Your task to perform on an android device: find snoozed emails in the gmail app Image 0: 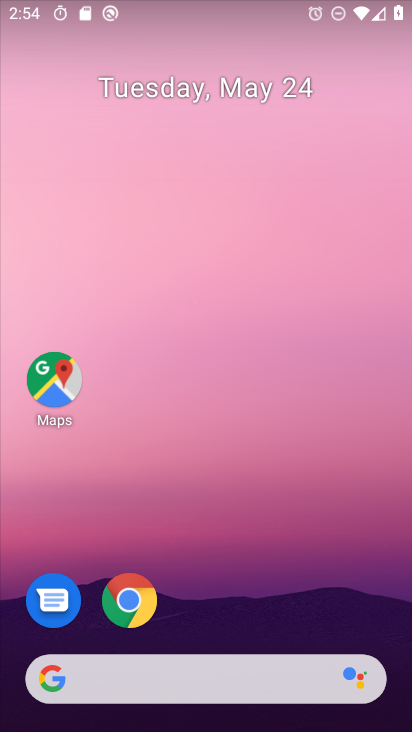
Step 0: drag from (244, 603) to (186, 122)
Your task to perform on an android device: find snoozed emails in the gmail app Image 1: 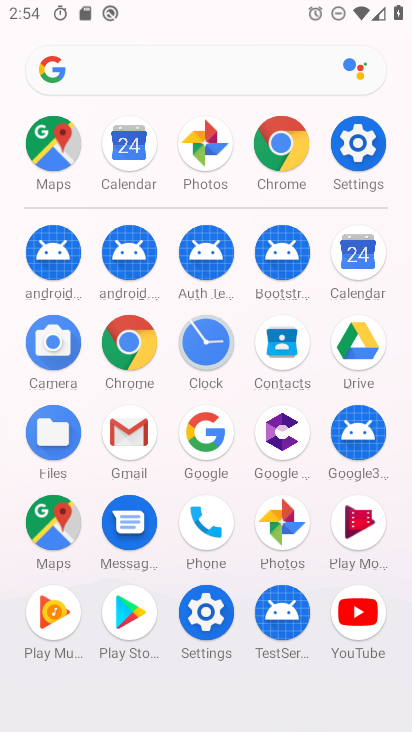
Step 1: click (136, 441)
Your task to perform on an android device: find snoozed emails in the gmail app Image 2: 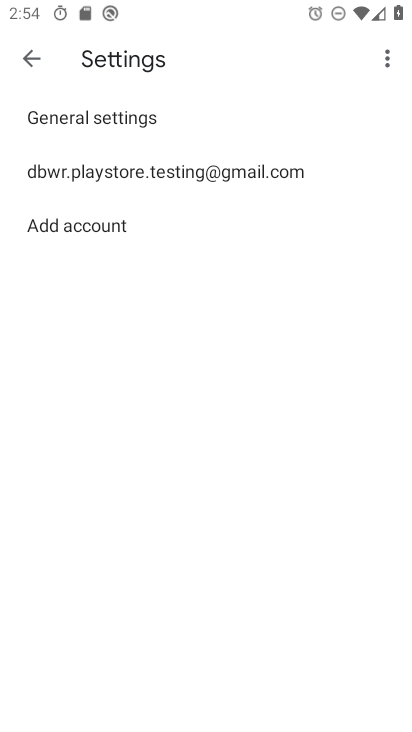
Step 2: click (34, 49)
Your task to perform on an android device: find snoozed emails in the gmail app Image 3: 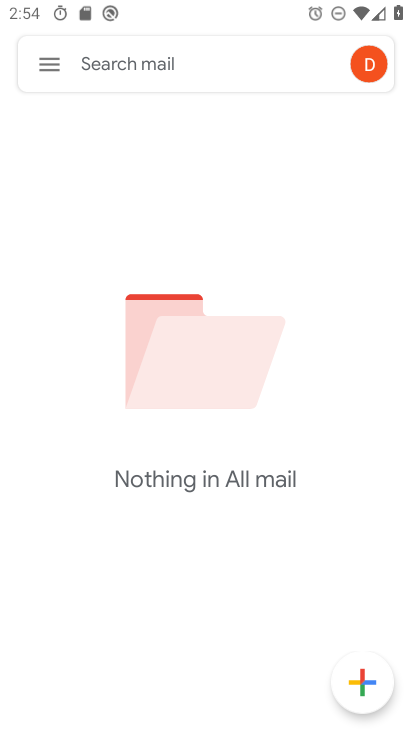
Step 3: click (41, 56)
Your task to perform on an android device: find snoozed emails in the gmail app Image 4: 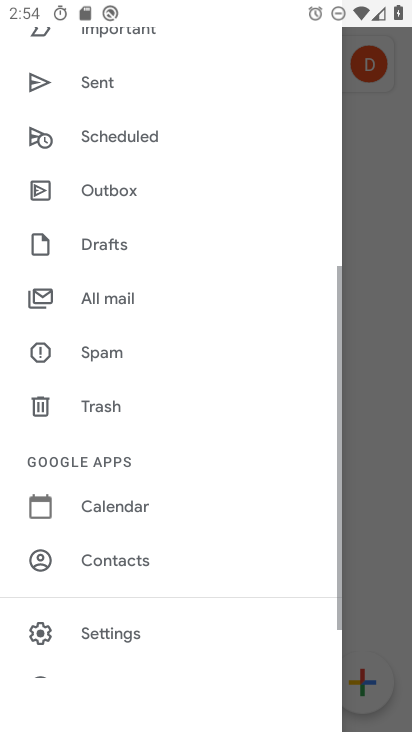
Step 4: drag from (135, 183) to (172, 461)
Your task to perform on an android device: find snoozed emails in the gmail app Image 5: 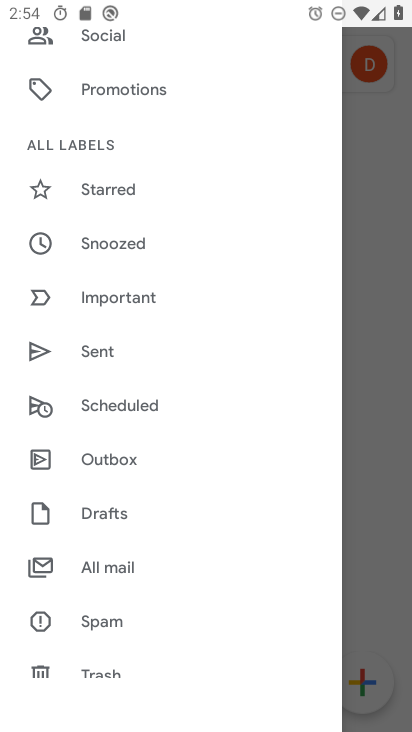
Step 5: click (129, 239)
Your task to perform on an android device: find snoozed emails in the gmail app Image 6: 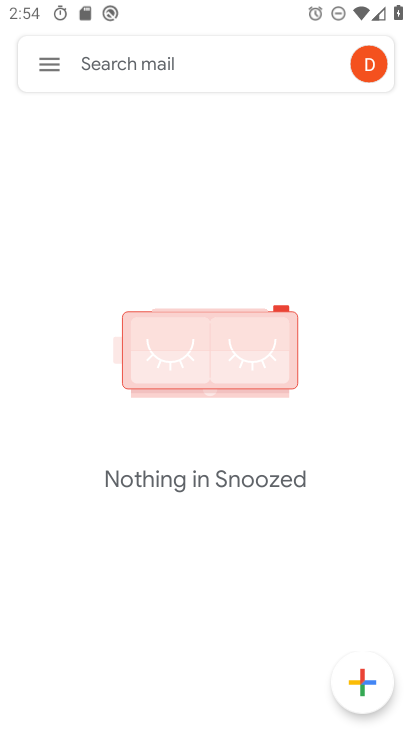
Step 6: task complete